Your task to perform on an android device: Open maps Image 0: 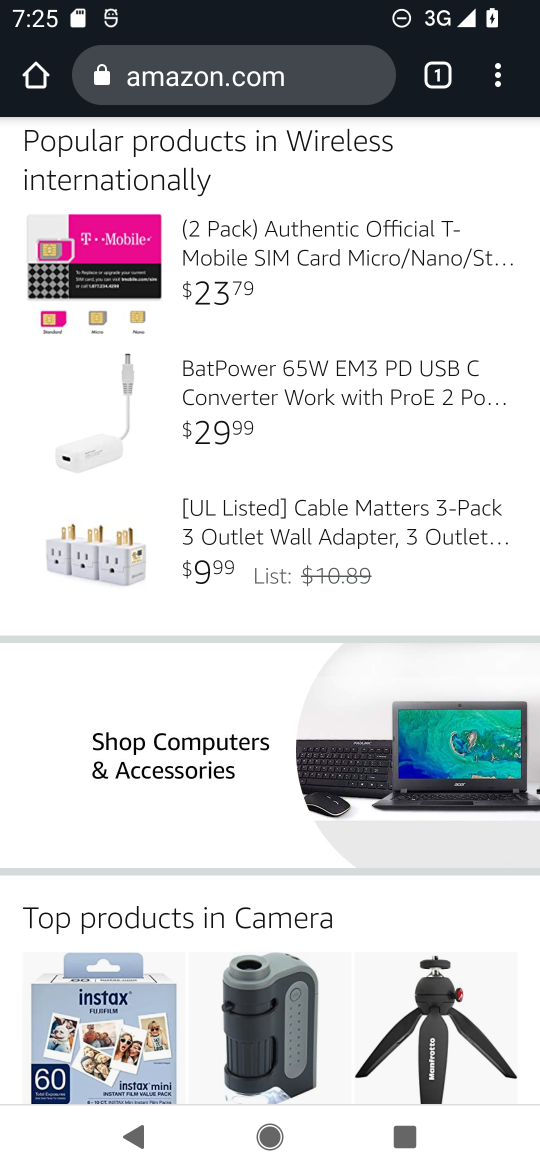
Step 0: press home button
Your task to perform on an android device: Open maps Image 1: 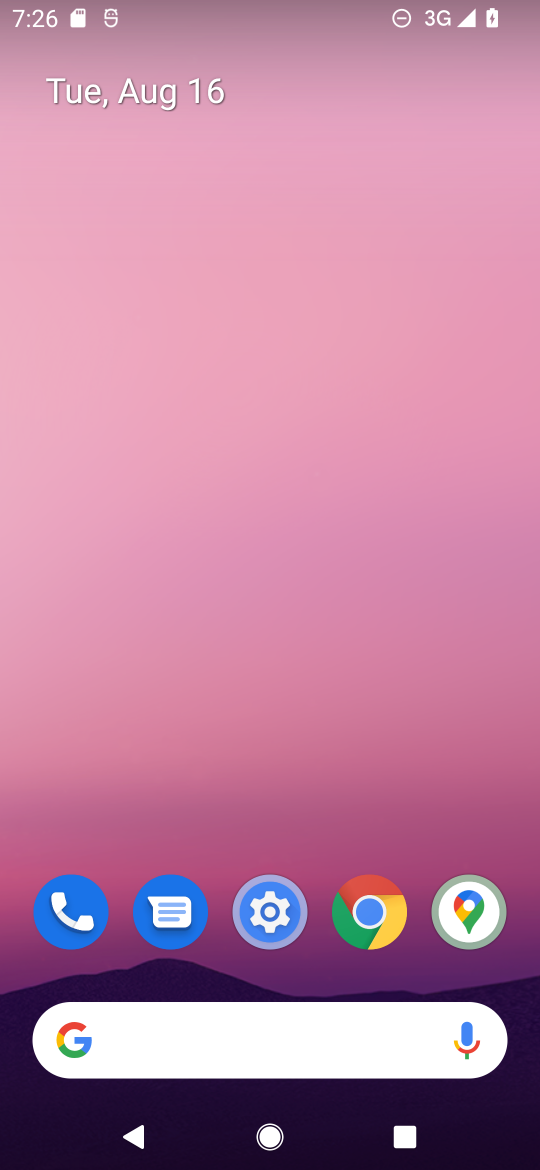
Step 1: click (470, 910)
Your task to perform on an android device: Open maps Image 2: 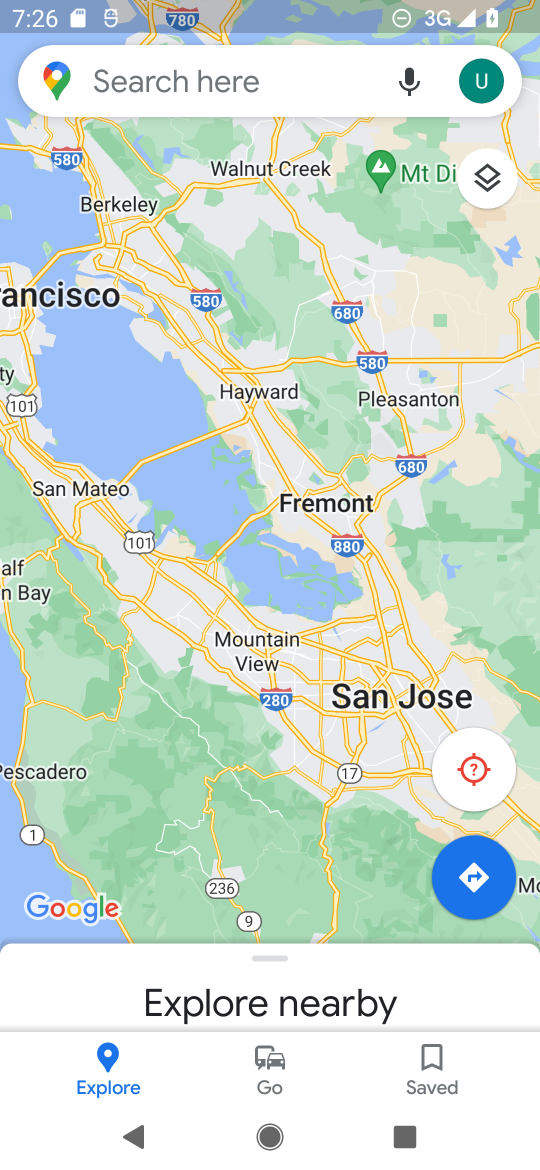
Step 2: task complete